Your task to perform on an android device: stop showing notifications on the lock screen Image 0: 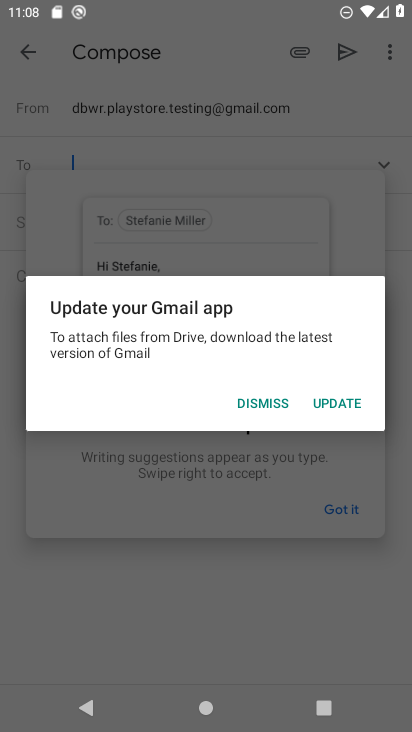
Step 0: press home button
Your task to perform on an android device: stop showing notifications on the lock screen Image 1: 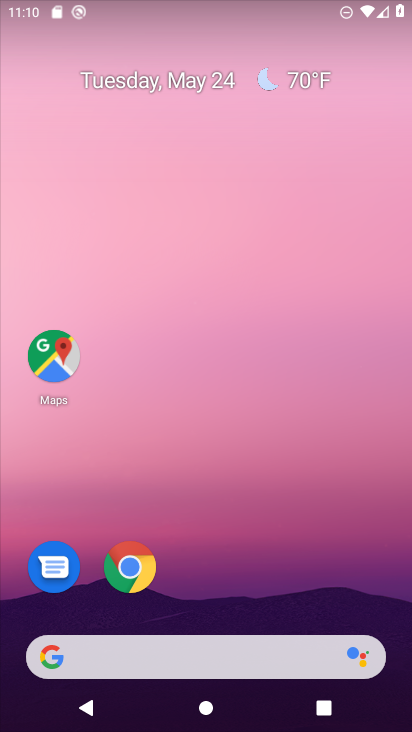
Step 1: drag from (382, 648) to (336, 225)
Your task to perform on an android device: stop showing notifications on the lock screen Image 2: 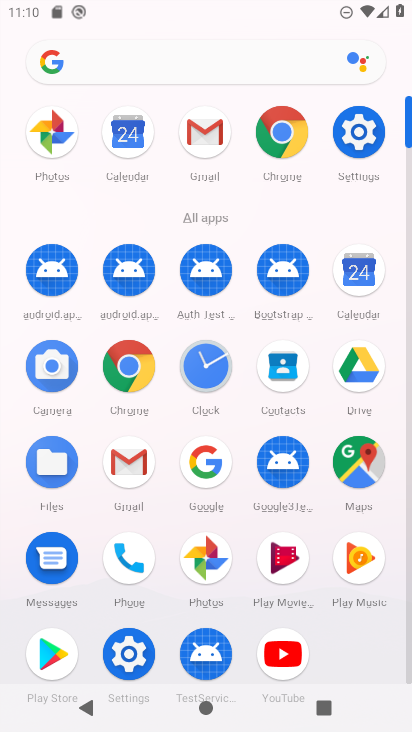
Step 2: click (359, 128)
Your task to perform on an android device: stop showing notifications on the lock screen Image 3: 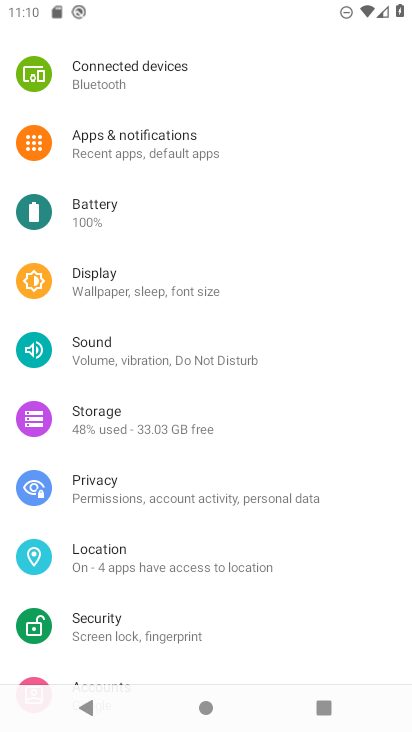
Step 3: click (163, 149)
Your task to perform on an android device: stop showing notifications on the lock screen Image 4: 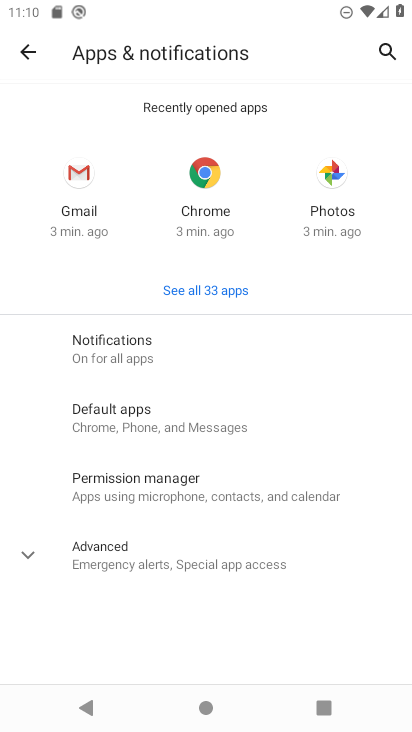
Step 4: click (106, 357)
Your task to perform on an android device: stop showing notifications on the lock screen Image 5: 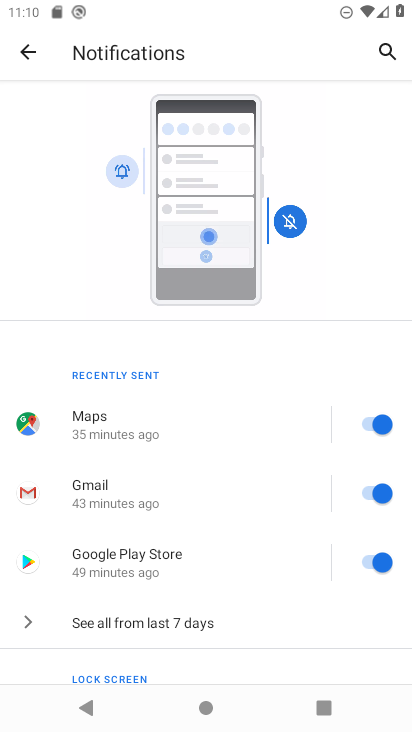
Step 5: drag from (281, 624) to (276, 192)
Your task to perform on an android device: stop showing notifications on the lock screen Image 6: 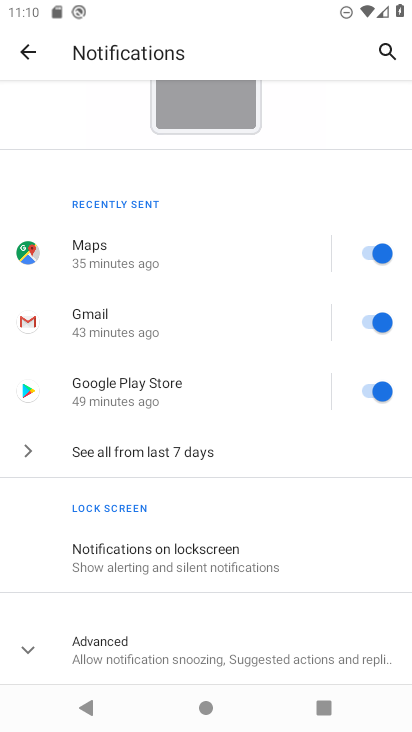
Step 6: click (176, 549)
Your task to perform on an android device: stop showing notifications on the lock screen Image 7: 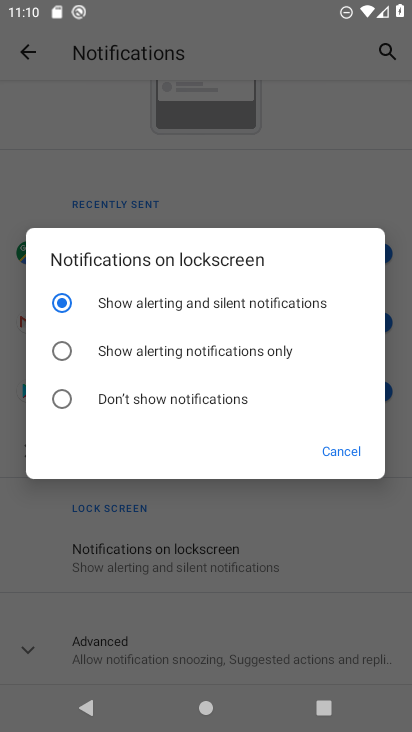
Step 7: click (61, 395)
Your task to perform on an android device: stop showing notifications on the lock screen Image 8: 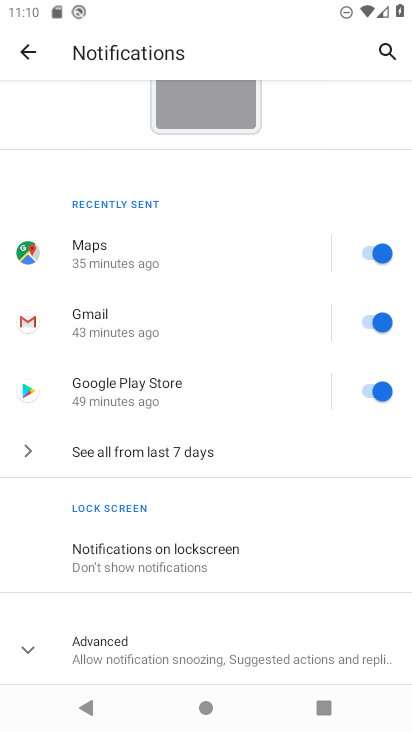
Step 8: task complete